Your task to perform on an android device: add a contact in the contacts app Image 0: 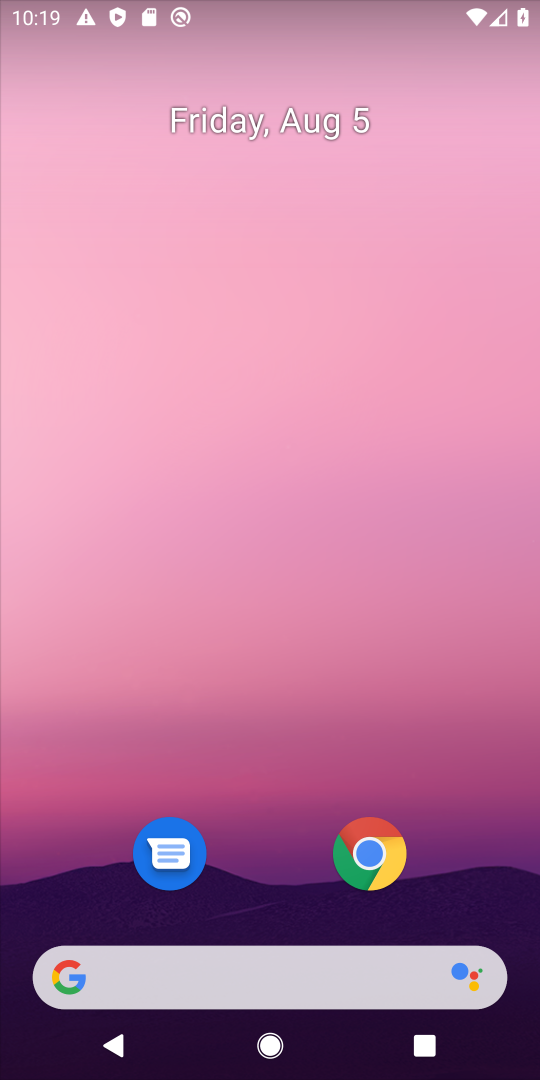
Step 0: drag from (262, 853) to (303, 25)
Your task to perform on an android device: add a contact in the contacts app Image 1: 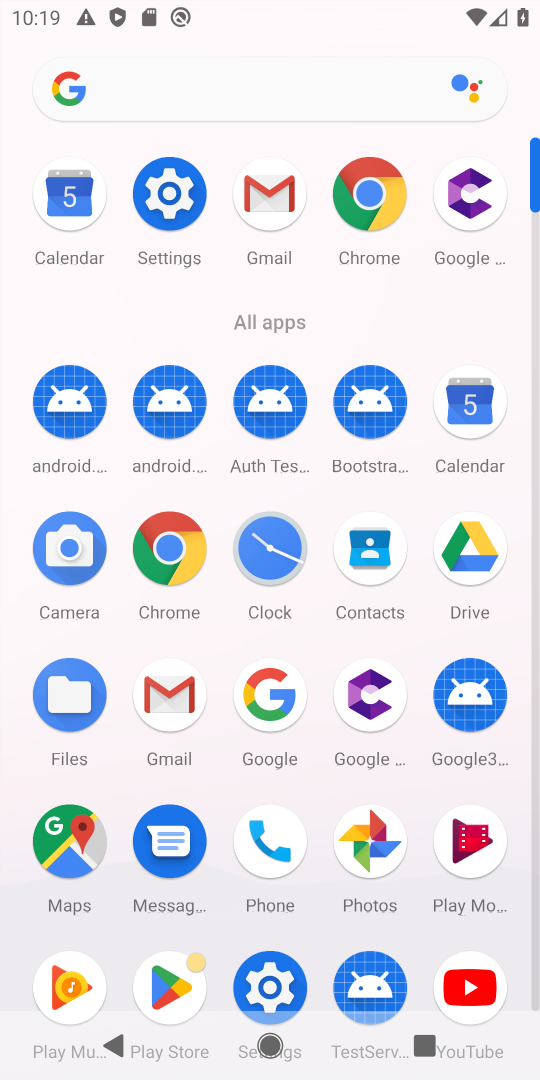
Step 1: click (362, 565)
Your task to perform on an android device: add a contact in the contacts app Image 2: 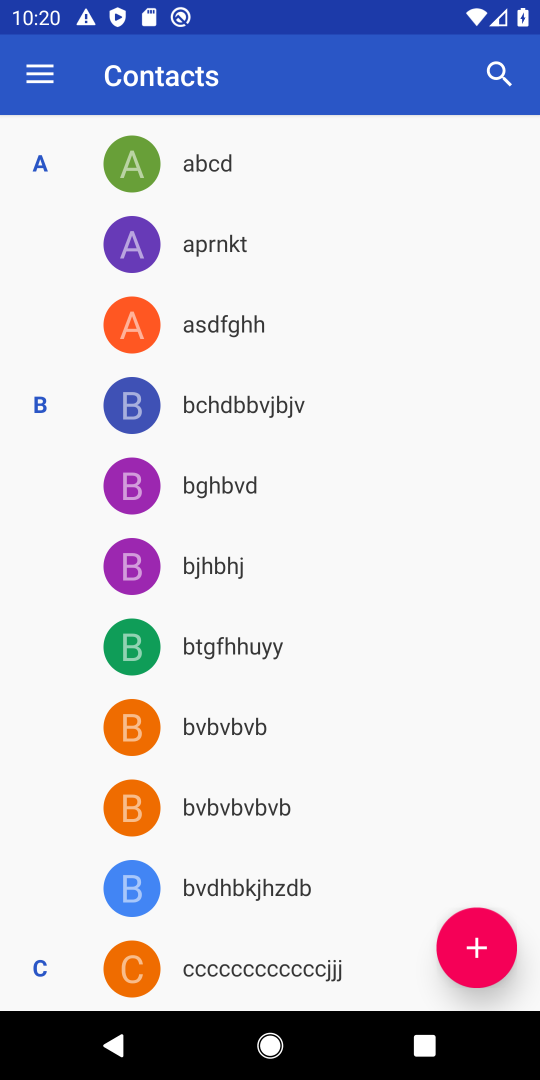
Step 2: click (476, 954)
Your task to perform on an android device: add a contact in the contacts app Image 3: 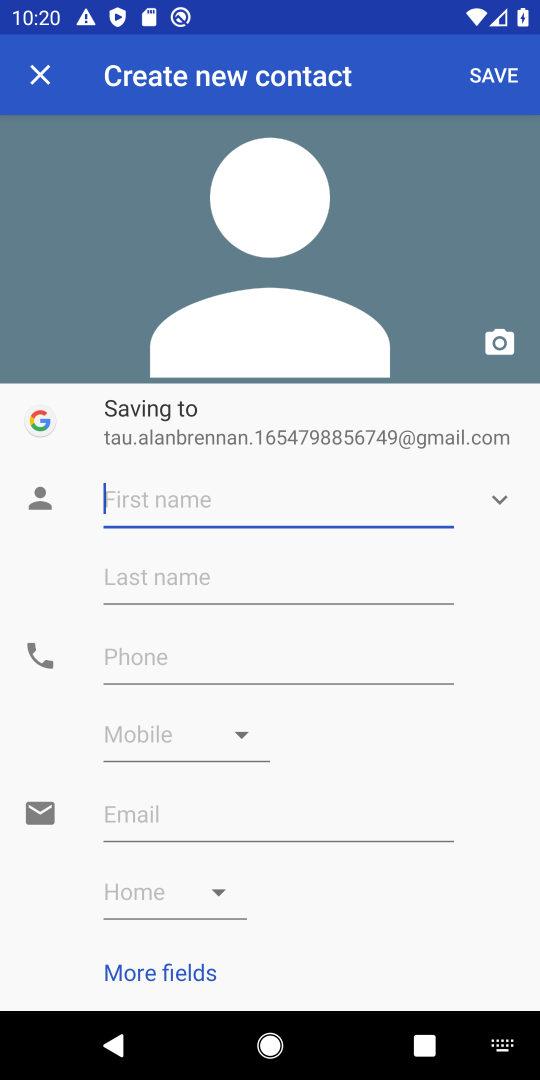
Step 3: type "uhjiok"
Your task to perform on an android device: add a contact in the contacts app Image 4: 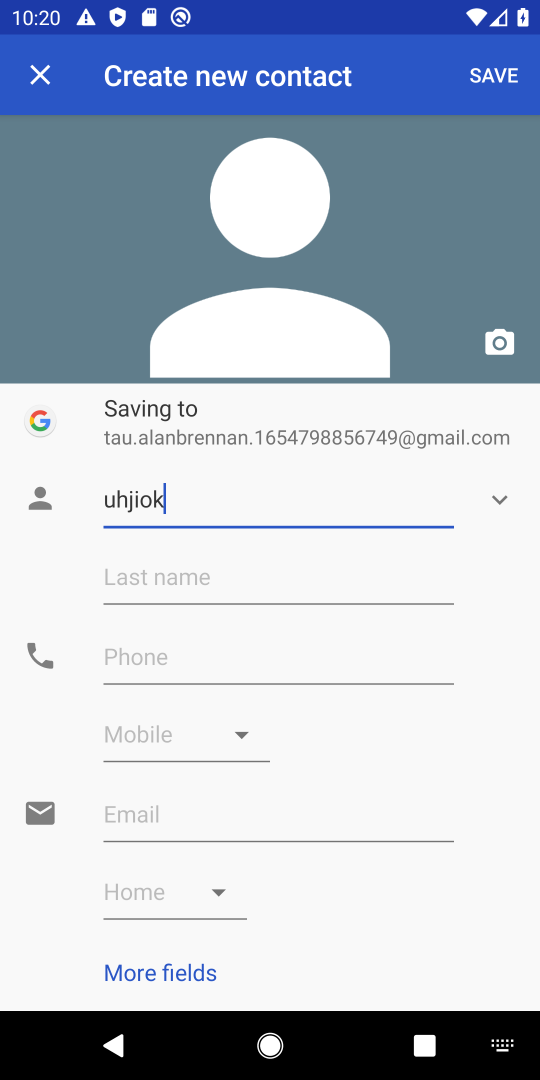
Step 4: click (154, 661)
Your task to perform on an android device: add a contact in the contacts app Image 5: 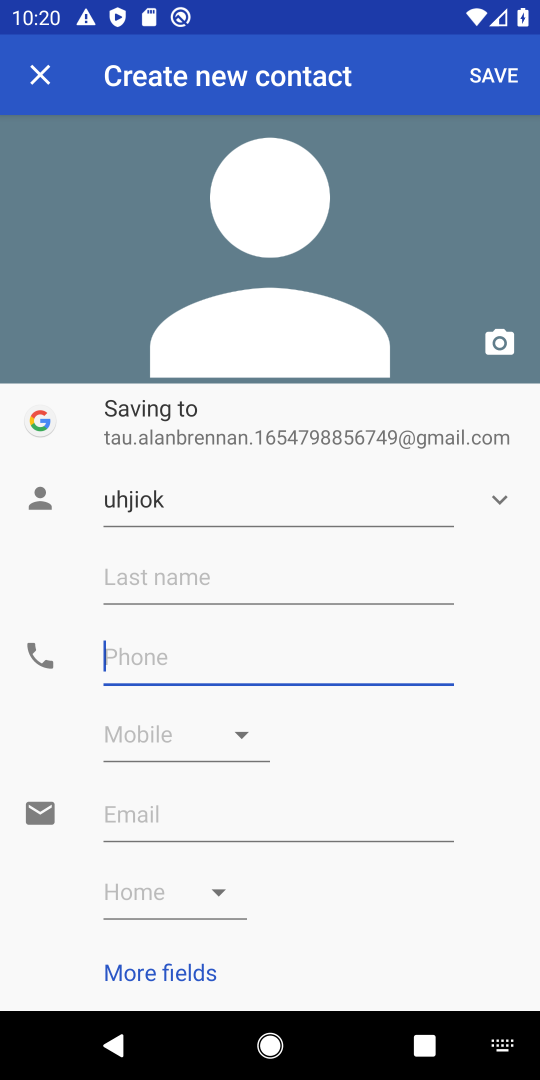
Step 5: type "7876979878"
Your task to perform on an android device: add a contact in the contacts app Image 6: 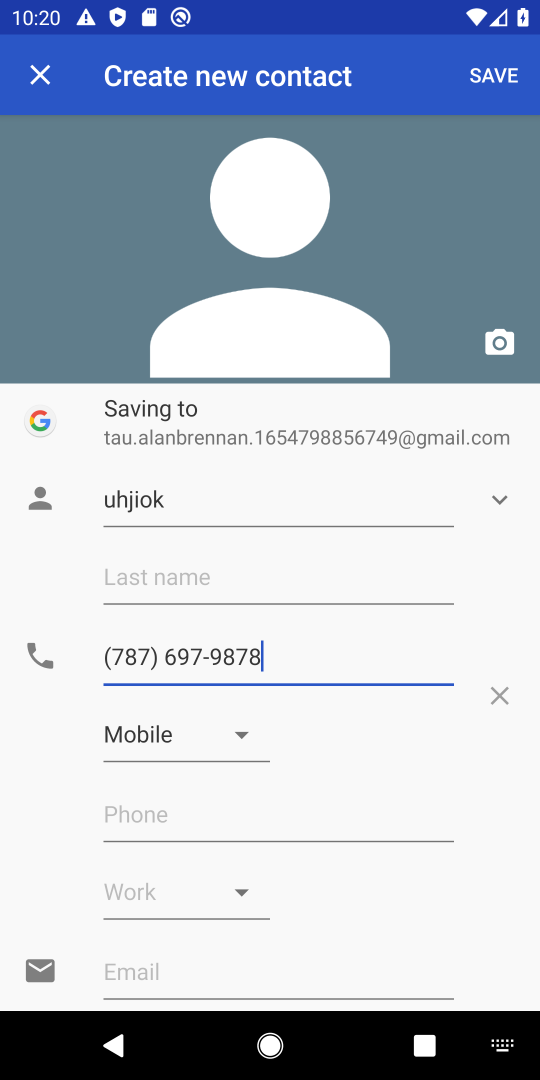
Step 6: click (473, 59)
Your task to perform on an android device: add a contact in the contacts app Image 7: 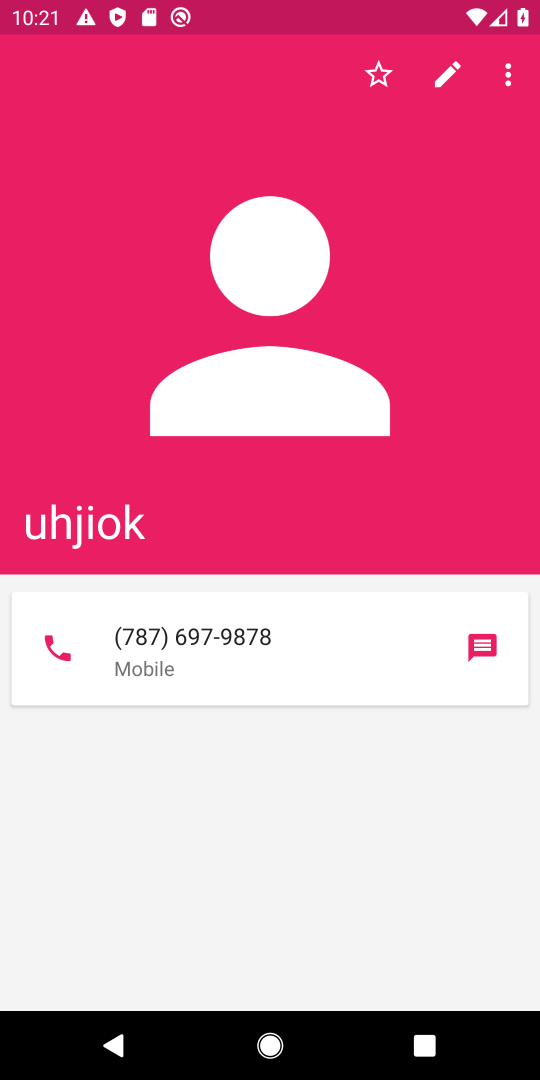
Step 7: task complete